Your task to perform on an android device: turn off improve location accuracy Image 0: 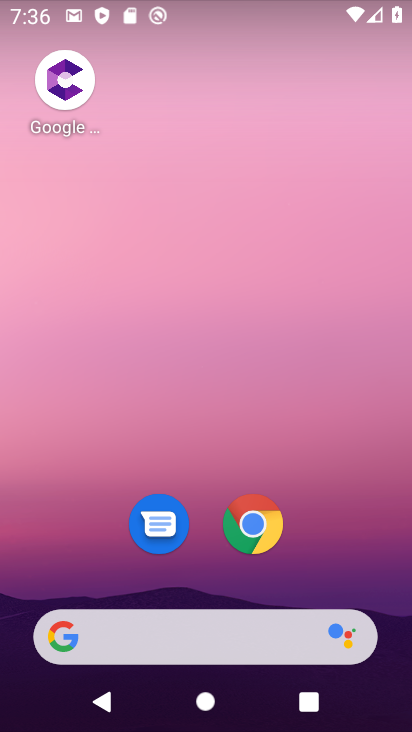
Step 0: drag from (319, 553) to (292, 13)
Your task to perform on an android device: turn off improve location accuracy Image 1: 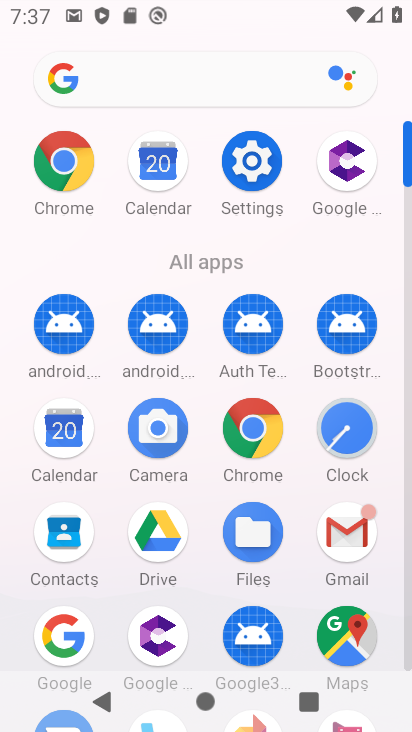
Step 1: click (252, 166)
Your task to perform on an android device: turn off improve location accuracy Image 2: 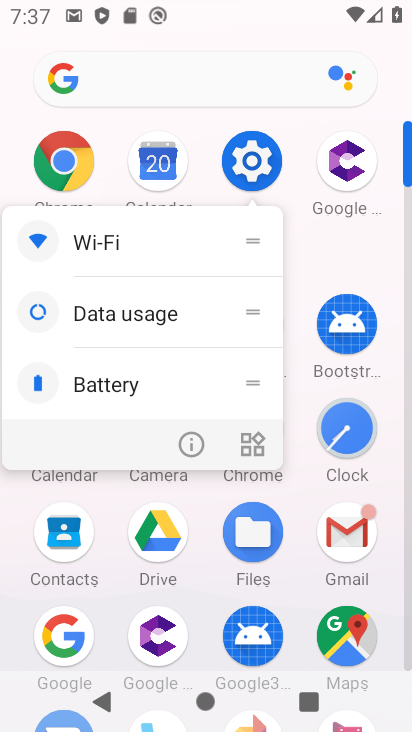
Step 2: click (254, 162)
Your task to perform on an android device: turn off improve location accuracy Image 3: 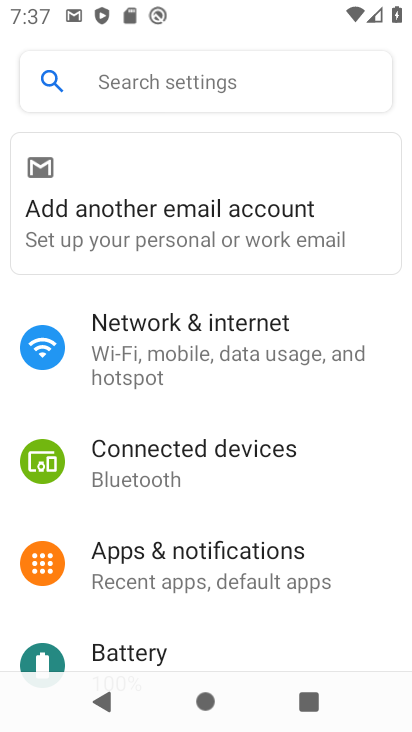
Step 3: drag from (260, 643) to (226, 131)
Your task to perform on an android device: turn off improve location accuracy Image 4: 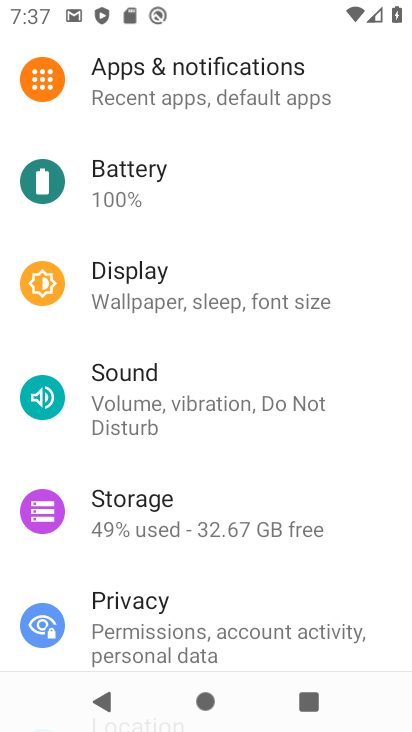
Step 4: drag from (180, 559) to (194, 135)
Your task to perform on an android device: turn off improve location accuracy Image 5: 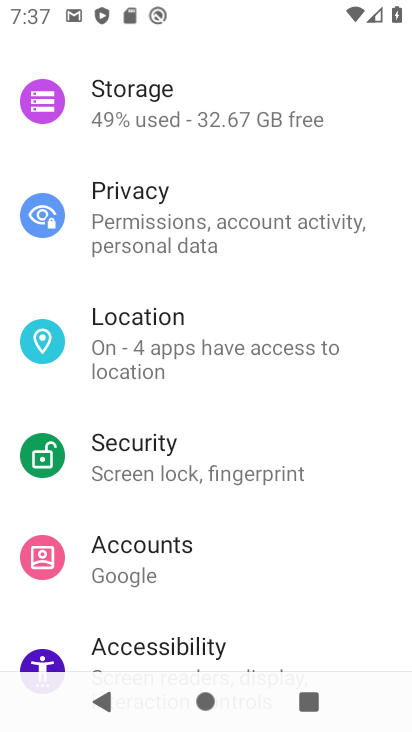
Step 5: click (170, 338)
Your task to perform on an android device: turn off improve location accuracy Image 6: 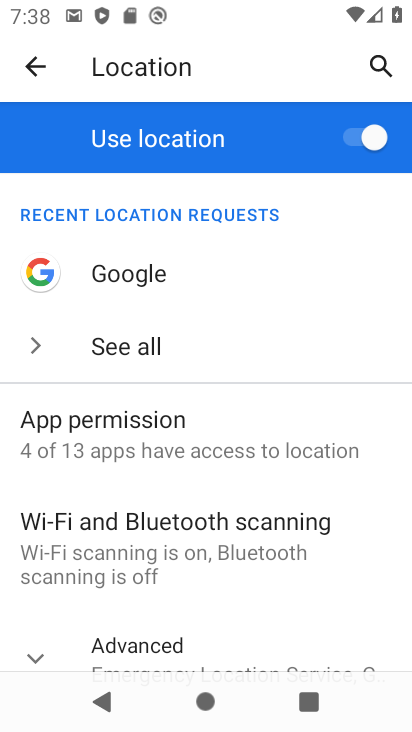
Step 6: drag from (231, 556) to (219, 251)
Your task to perform on an android device: turn off improve location accuracy Image 7: 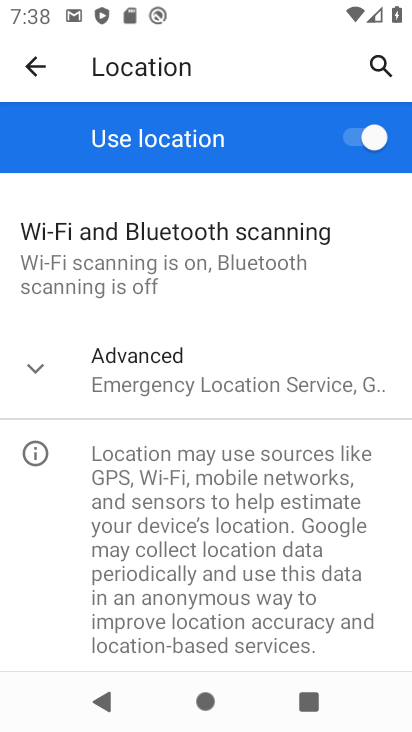
Step 7: click (26, 362)
Your task to perform on an android device: turn off improve location accuracy Image 8: 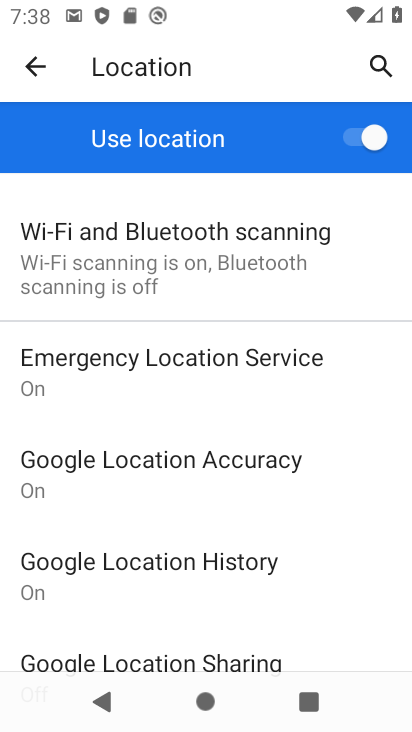
Step 8: click (155, 479)
Your task to perform on an android device: turn off improve location accuracy Image 9: 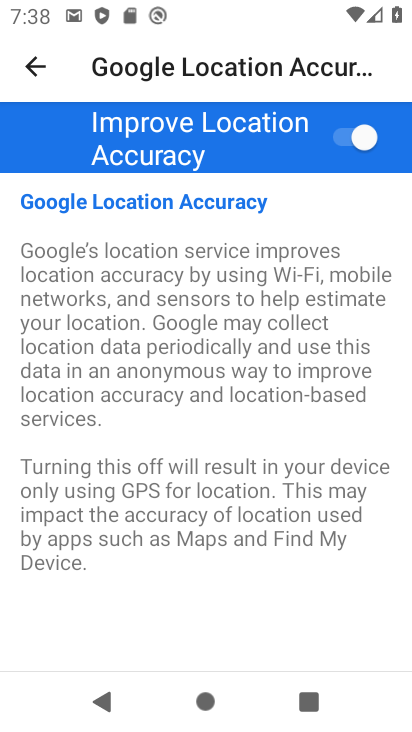
Step 9: click (341, 131)
Your task to perform on an android device: turn off improve location accuracy Image 10: 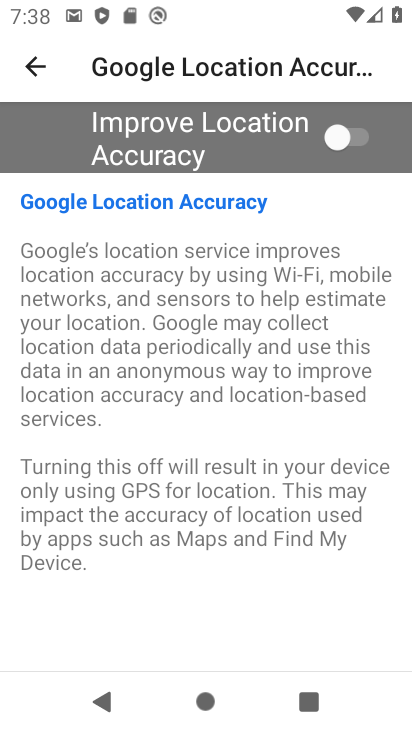
Step 10: task complete